Your task to perform on an android device: turn vacation reply on in the gmail app Image 0: 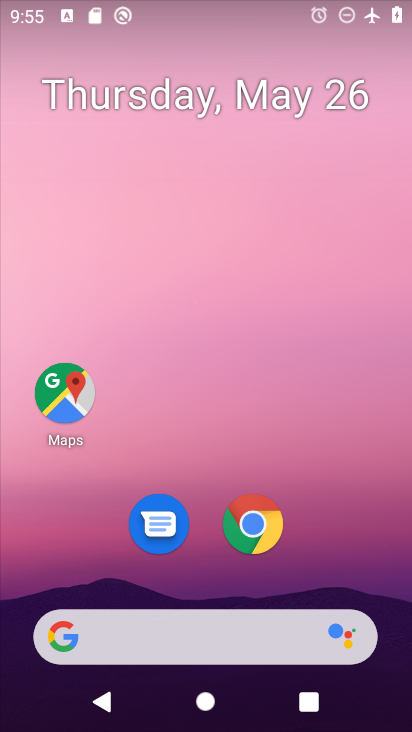
Step 0: drag from (319, 500) to (273, 13)
Your task to perform on an android device: turn vacation reply on in the gmail app Image 1: 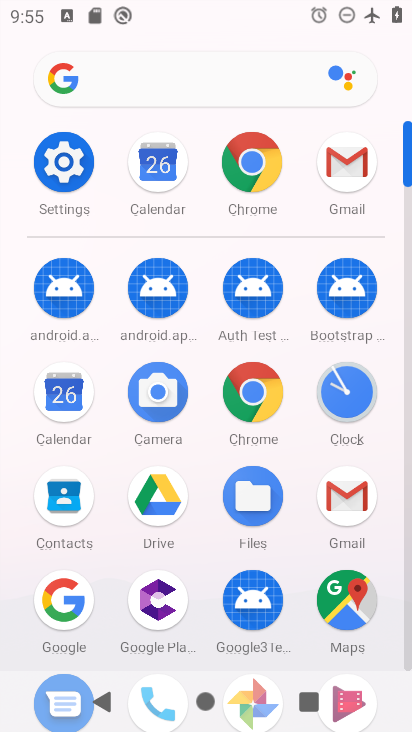
Step 1: click (347, 161)
Your task to perform on an android device: turn vacation reply on in the gmail app Image 2: 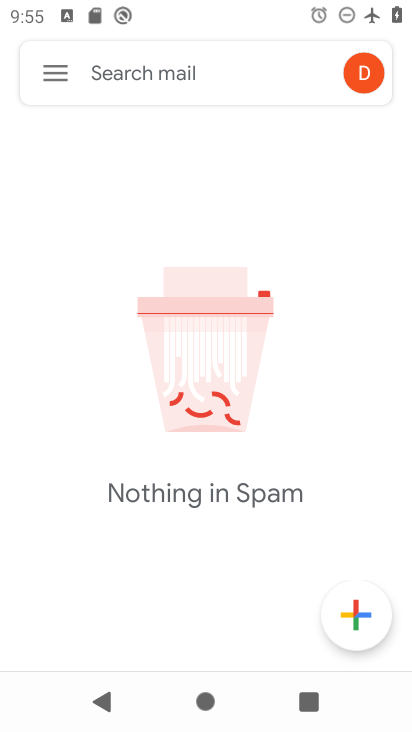
Step 2: click (57, 74)
Your task to perform on an android device: turn vacation reply on in the gmail app Image 3: 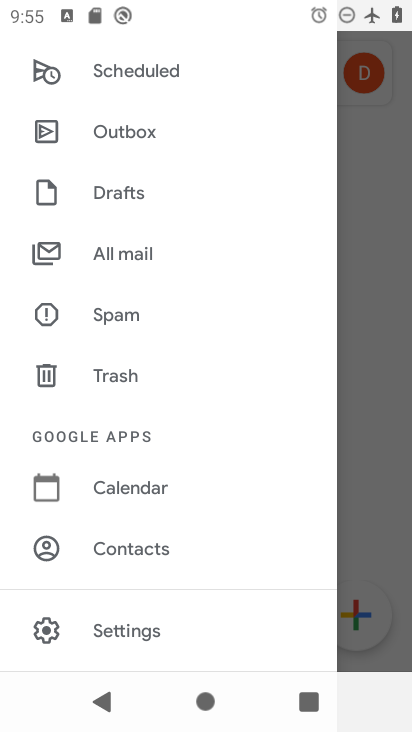
Step 3: click (171, 620)
Your task to perform on an android device: turn vacation reply on in the gmail app Image 4: 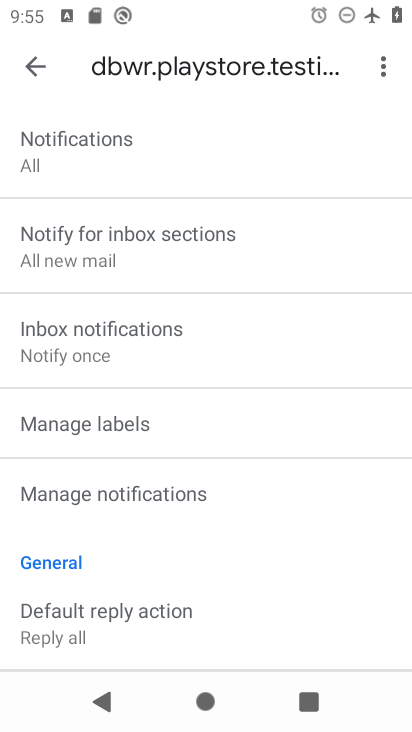
Step 4: drag from (267, 501) to (291, 35)
Your task to perform on an android device: turn vacation reply on in the gmail app Image 5: 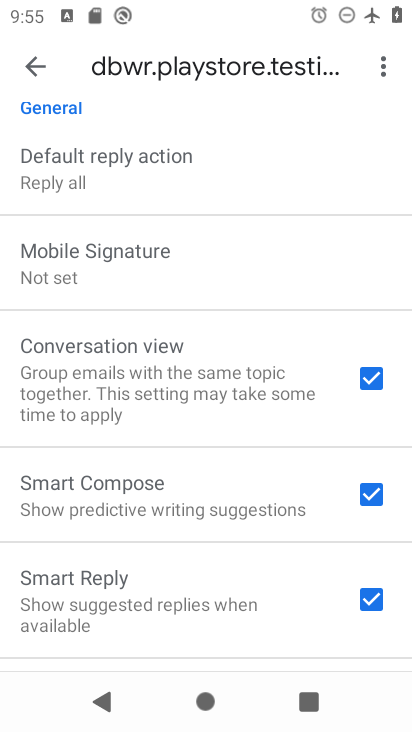
Step 5: drag from (214, 473) to (256, 144)
Your task to perform on an android device: turn vacation reply on in the gmail app Image 6: 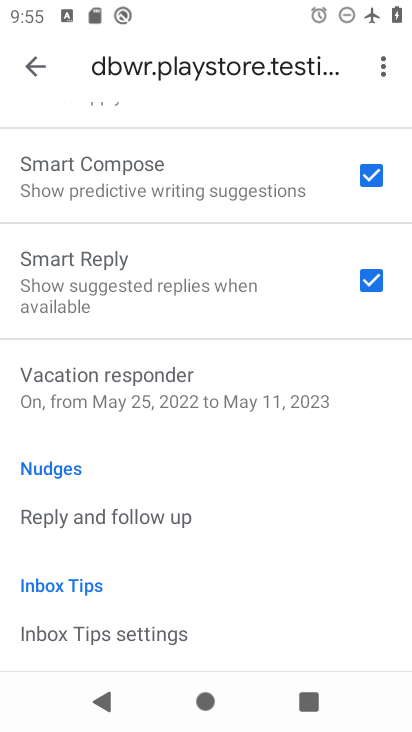
Step 6: click (182, 379)
Your task to perform on an android device: turn vacation reply on in the gmail app Image 7: 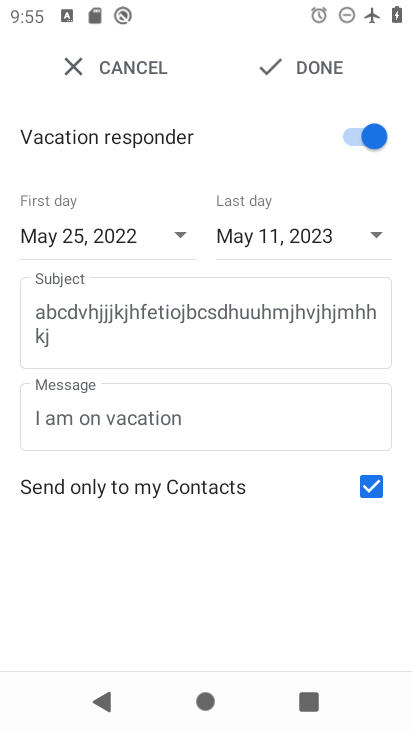
Step 7: task complete